Your task to perform on an android device: change timer sound Image 0: 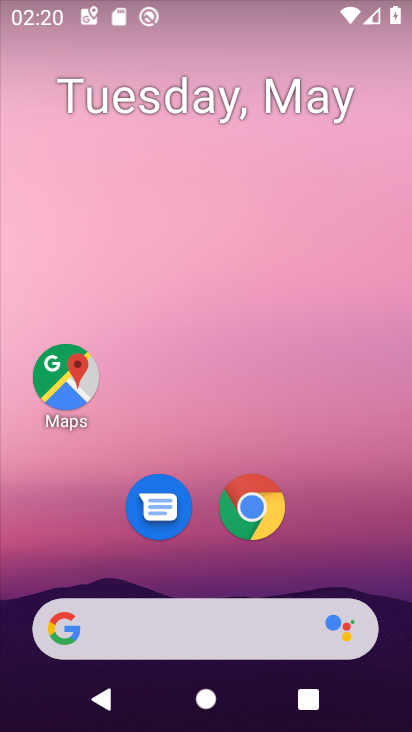
Step 0: drag from (220, 575) to (224, 246)
Your task to perform on an android device: change timer sound Image 1: 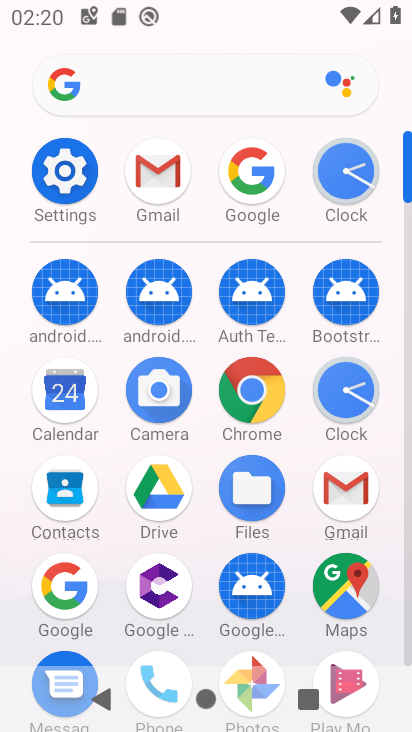
Step 1: click (350, 166)
Your task to perform on an android device: change timer sound Image 2: 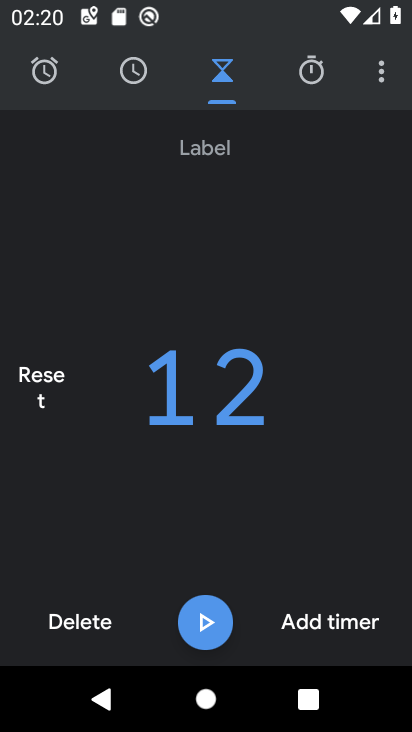
Step 2: click (372, 73)
Your task to perform on an android device: change timer sound Image 3: 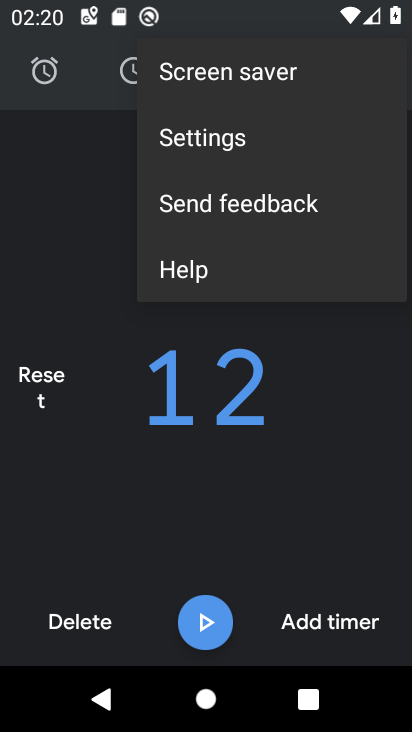
Step 3: click (230, 144)
Your task to perform on an android device: change timer sound Image 4: 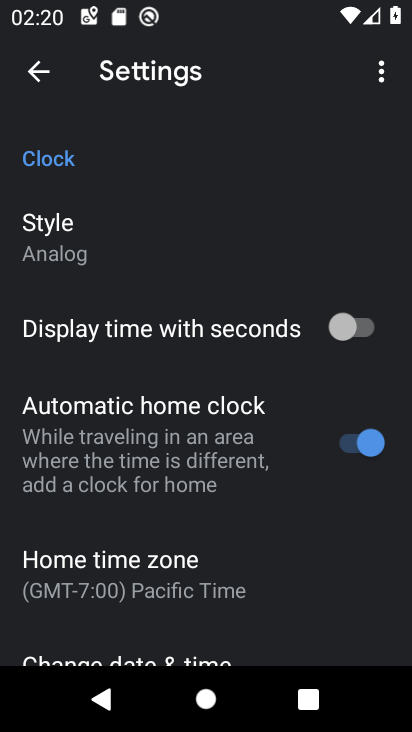
Step 4: drag from (152, 581) to (176, 297)
Your task to perform on an android device: change timer sound Image 5: 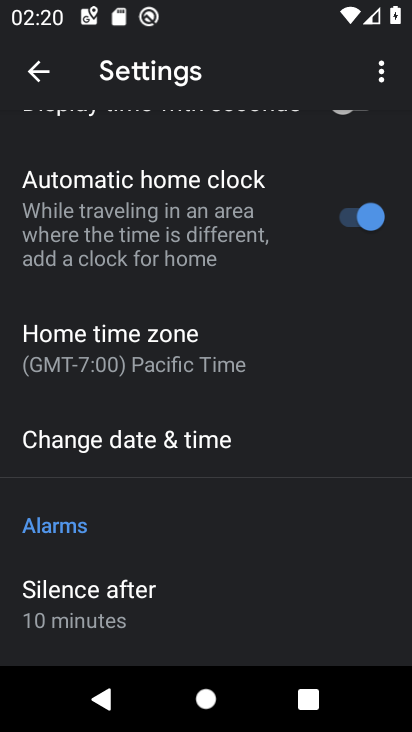
Step 5: drag from (188, 519) to (220, 284)
Your task to perform on an android device: change timer sound Image 6: 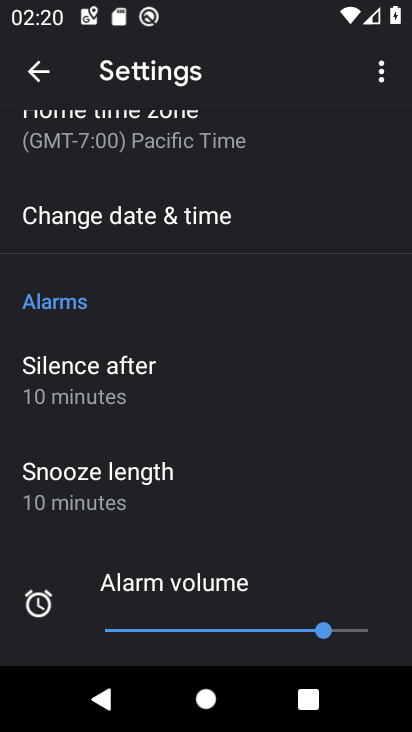
Step 6: drag from (224, 507) to (237, 330)
Your task to perform on an android device: change timer sound Image 7: 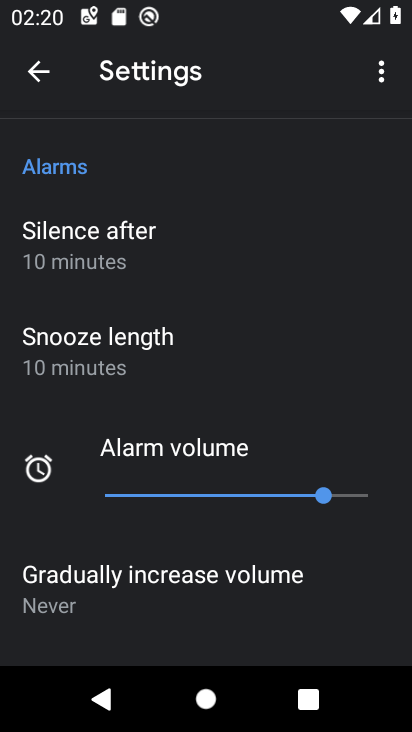
Step 7: drag from (228, 546) to (242, 380)
Your task to perform on an android device: change timer sound Image 8: 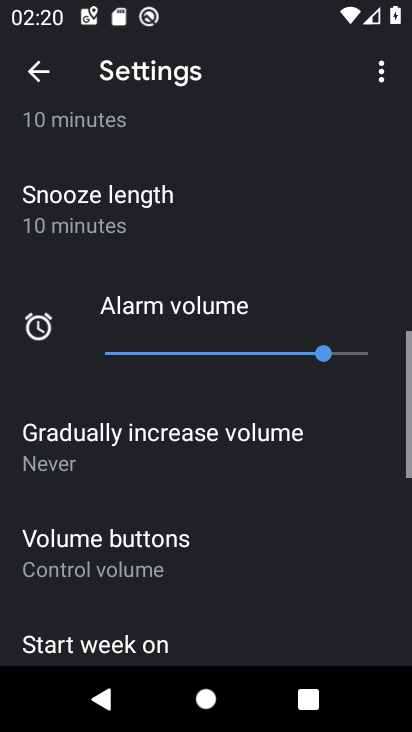
Step 8: drag from (233, 476) to (250, 376)
Your task to perform on an android device: change timer sound Image 9: 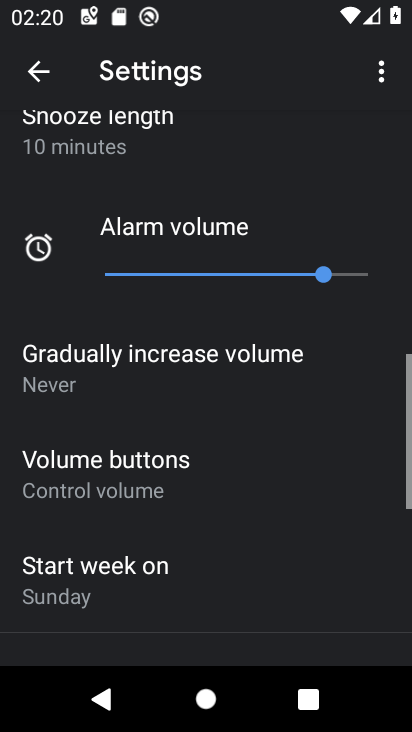
Step 9: drag from (266, 558) to (267, 329)
Your task to perform on an android device: change timer sound Image 10: 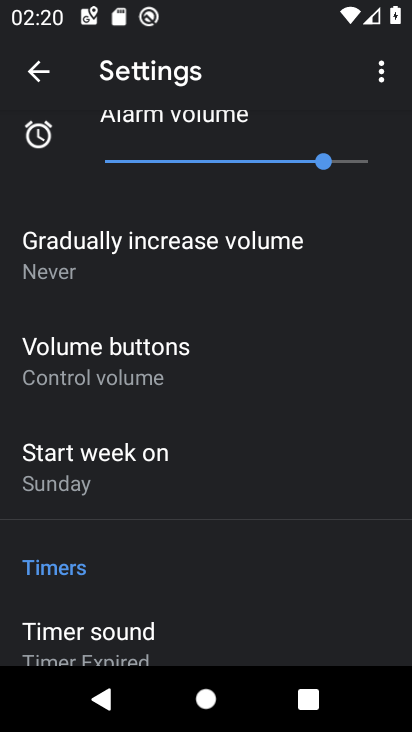
Step 10: click (176, 630)
Your task to perform on an android device: change timer sound Image 11: 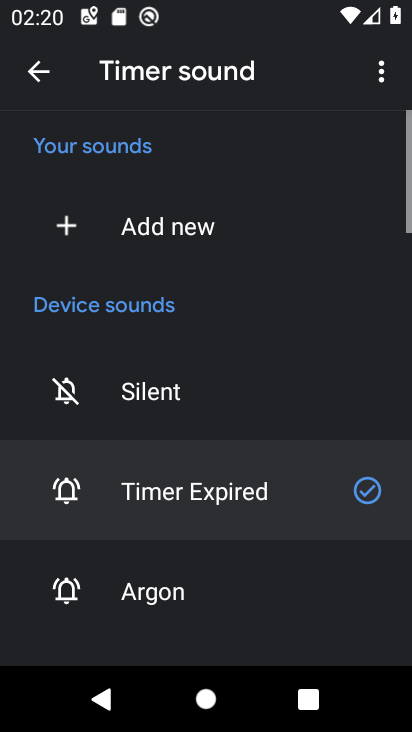
Step 11: click (172, 586)
Your task to perform on an android device: change timer sound Image 12: 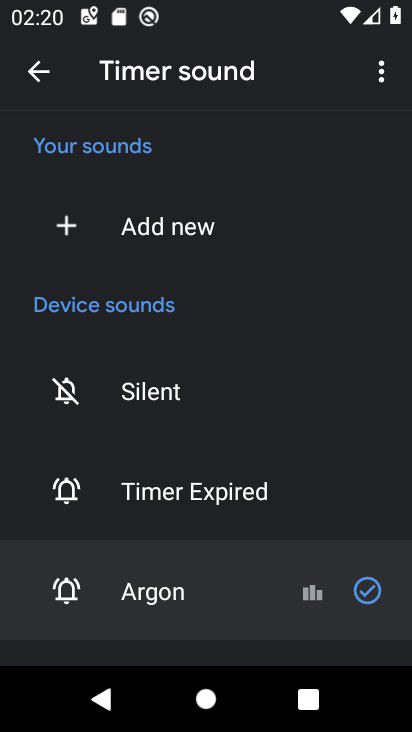
Step 12: task complete